Your task to perform on an android device: change your default location settings in chrome Image 0: 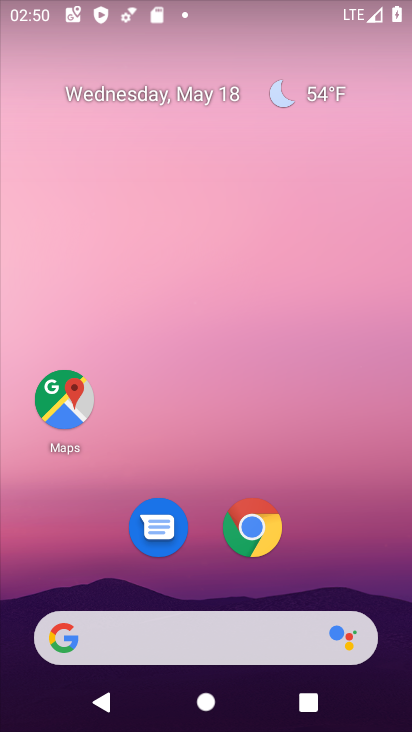
Step 0: drag from (226, 601) to (54, 8)
Your task to perform on an android device: change your default location settings in chrome Image 1: 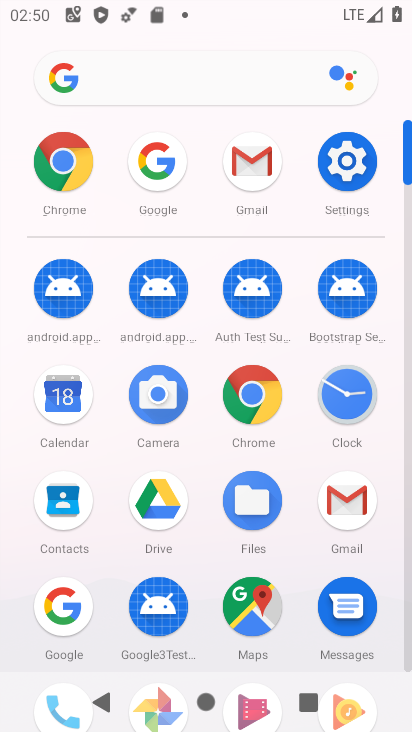
Step 1: click (54, 185)
Your task to perform on an android device: change your default location settings in chrome Image 2: 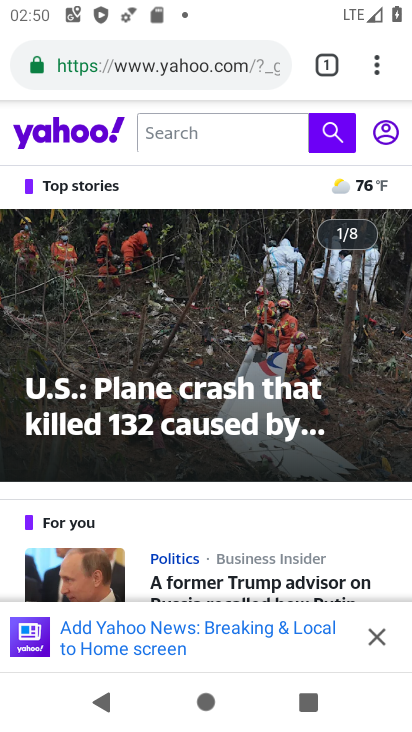
Step 2: click (382, 61)
Your task to perform on an android device: change your default location settings in chrome Image 3: 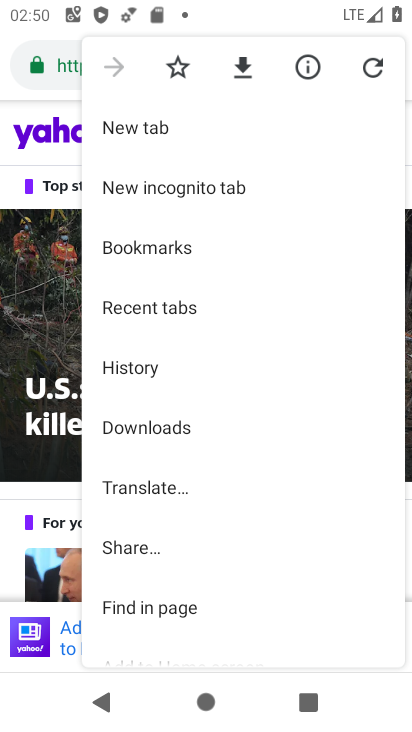
Step 3: drag from (188, 560) to (135, 40)
Your task to perform on an android device: change your default location settings in chrome Image 4: 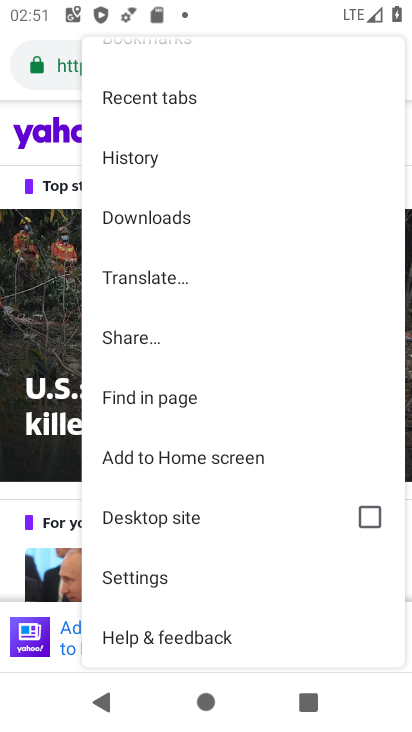
Step 4: click (138, 577)
Your task to perform on an android device: change your default location settings in chrome Image 5: 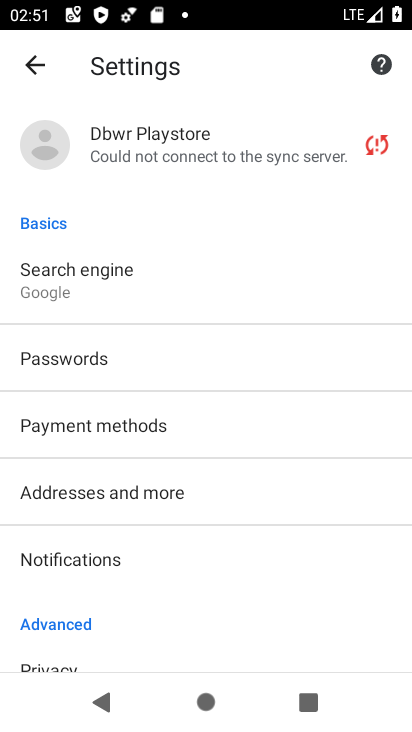
Step 5: drag from (140, 498) to (123, 53)
Your task to perform on an android device: change your default location settings in chrome Image 6: 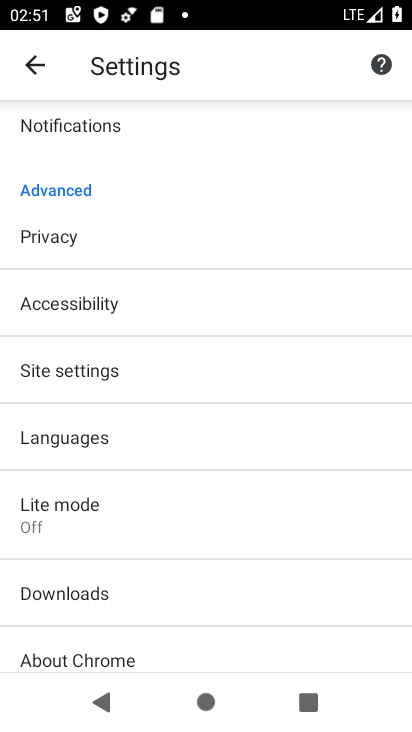
Step 6: click (82, 358)
Your task to perform on an android device: change your default location settings in chrome Image 7: 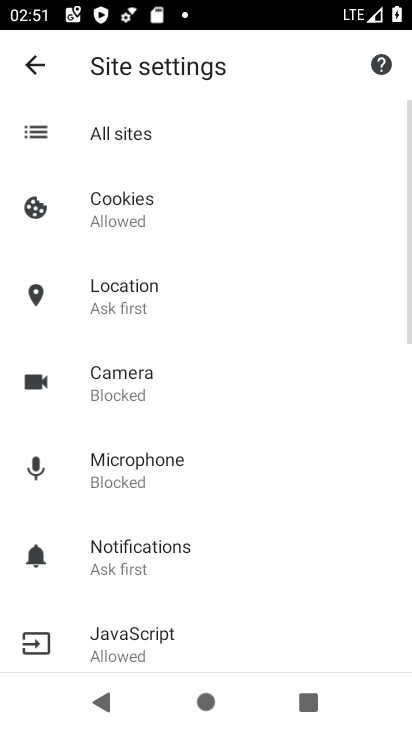
Step 7: click (138, 305)
Your task to perform on an android device: change your default location settings in chrome Image 8: 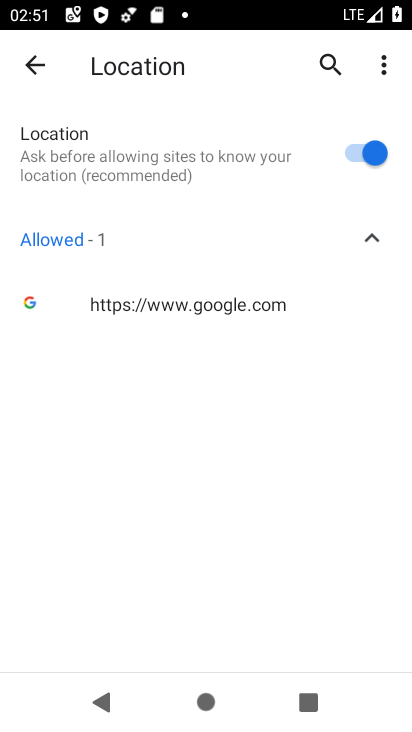
Step 8: click (380, 149)
Your task to perform on an android device: change your default location settings in chrome Image 9: 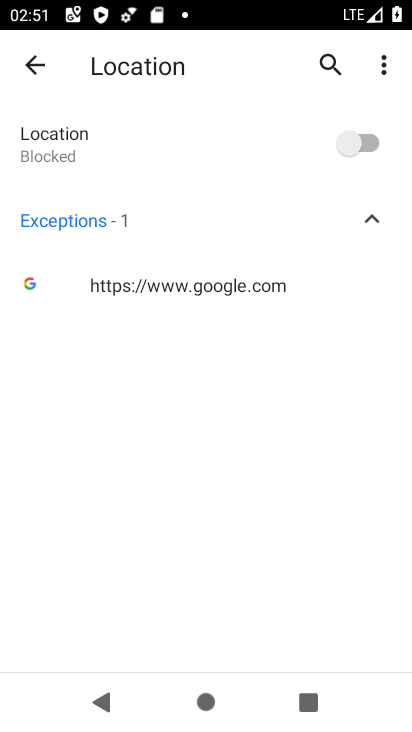
Step 9: task complete